Your task to perform on an android device: turn on the 12-hour format for clock Image 0: 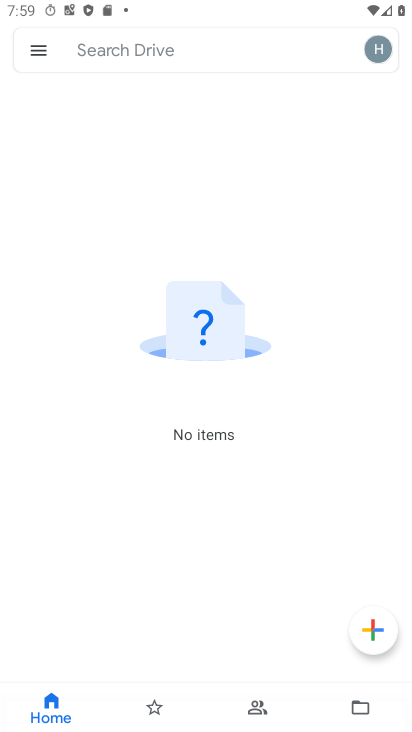
Step 0: press home button
Your task to perform on an android device: turn on the 12-hour format for clock Image 1: 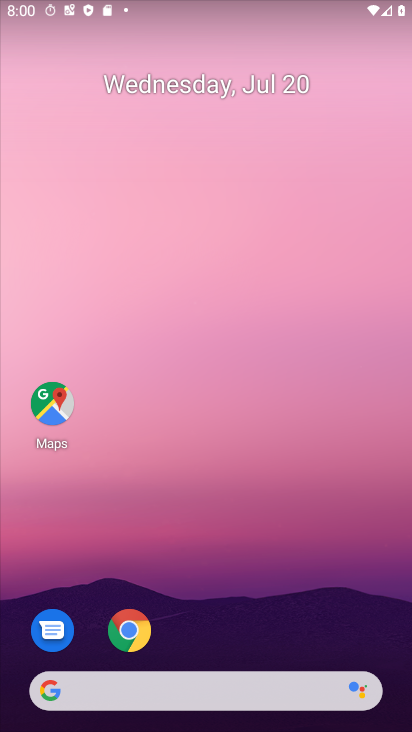
Step 1: drag from (174, 597) to (253, 36)
Your task to perform on an android device: turn on the 12-hour format for clock Image 2: 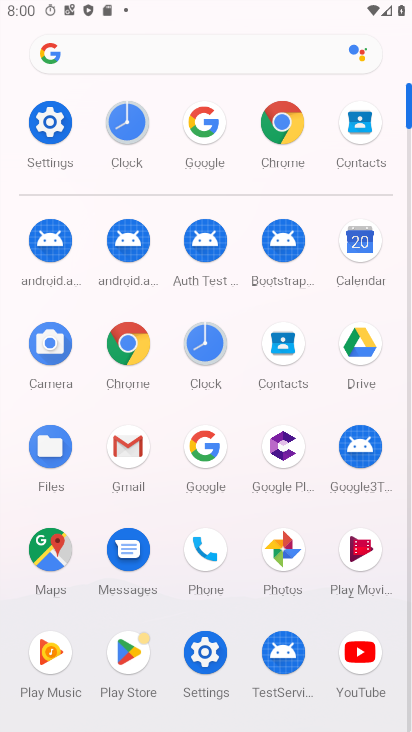
Step 2: click (211, 347)
Your task to perform on an android device: turn on the 12-hour format for clock Image 3: 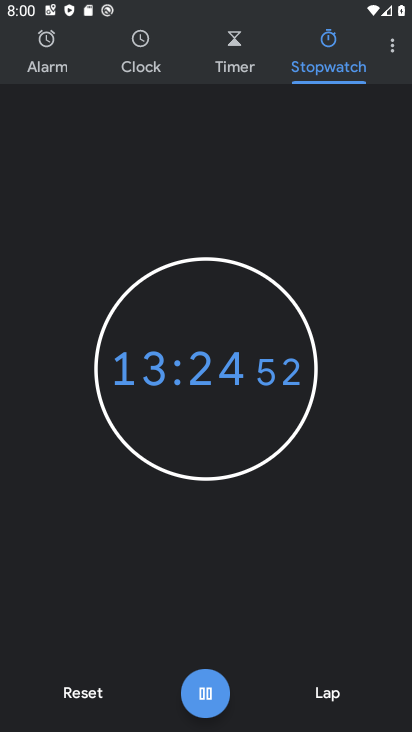
Step 3: click (397, 49)
Your task to perform on an android device: turn on the 12-hour format for clock Image 4: 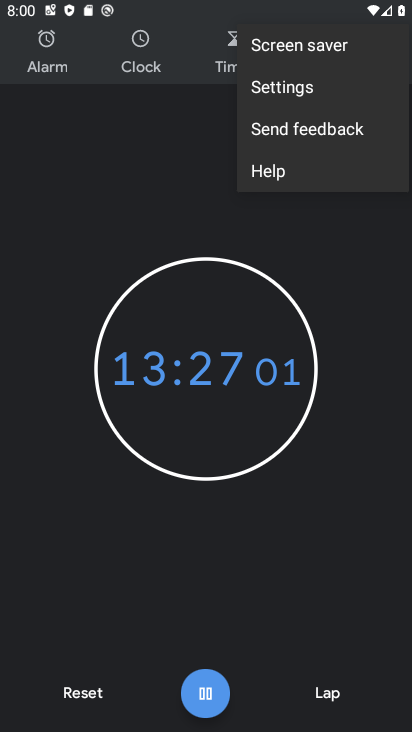
Step 4: click (303, 88)
Your task to perform on an android device: turn on the 12-hour format for clock Image 5: 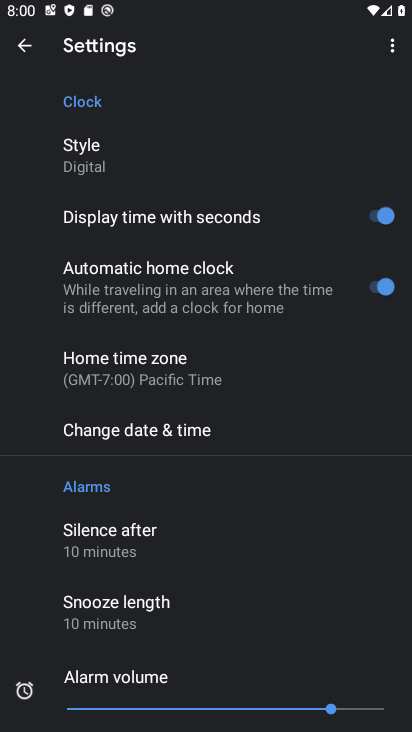
Step 5: click (147, 432)
Your task to perform on an android device: turn on the 12-hour format for clock Image 6: 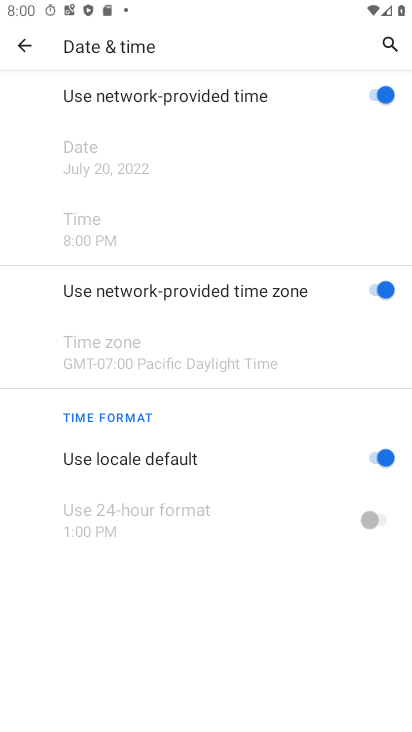
Step 6: task complete